Your task to perform on an android device: Open accessibility settings Image 0: 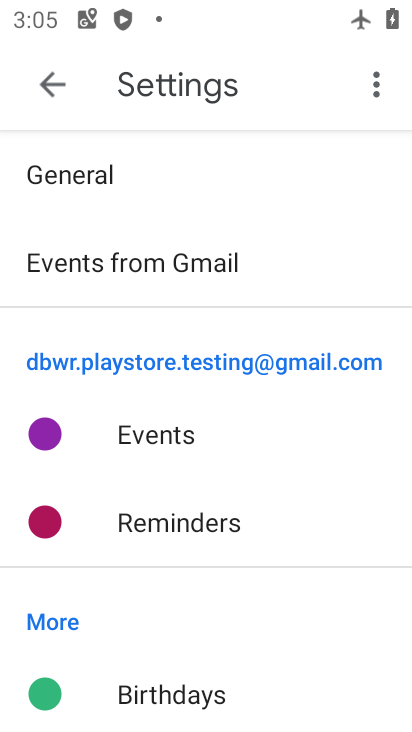
Step 0: press home button
Your task to perform on an android device: Open accessibility settings Image 1: 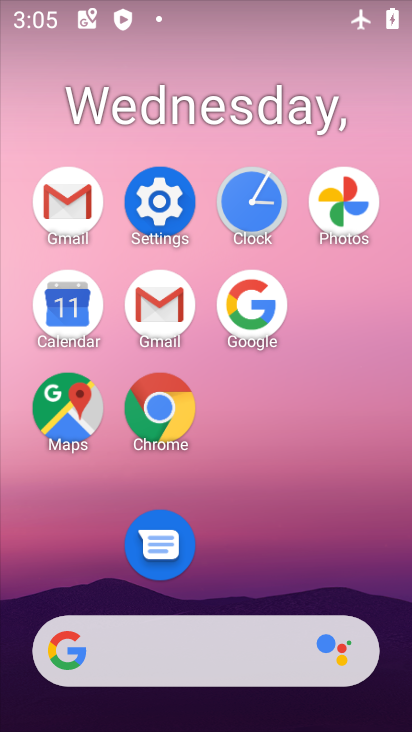
Step 1: click (162, 214)
Your task to perform on an android device: Open accessibility settings Image 2: 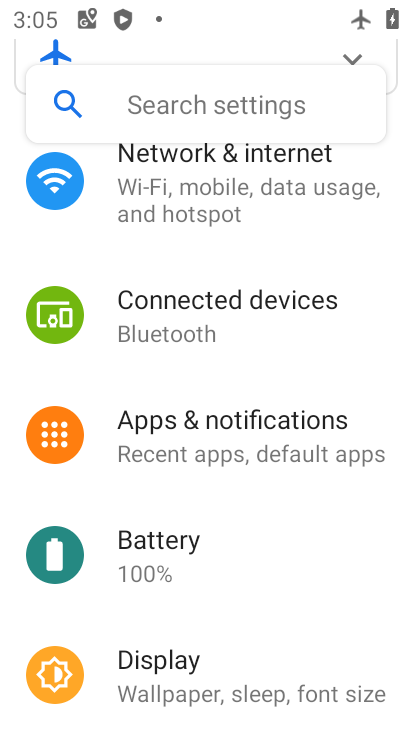
Step 2: drag from (247, 609) to (301, 209)
Your task to perform on an android device: Open accessibility settings Image 3: 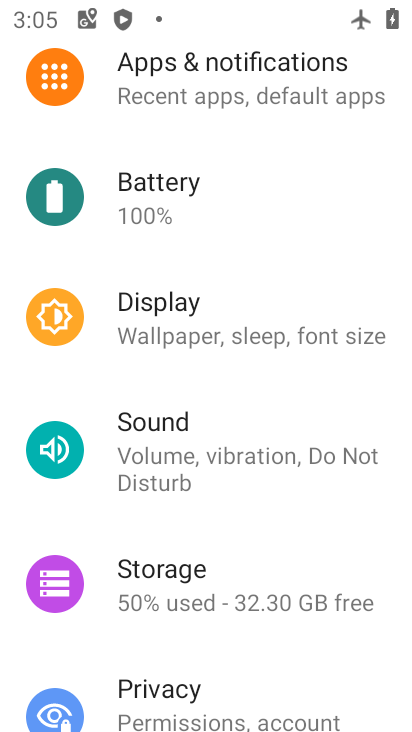
Step 3: drag from (300, 650) to (345, 246)
Your task to perform on an android device: Open accessibility settings Image 4: 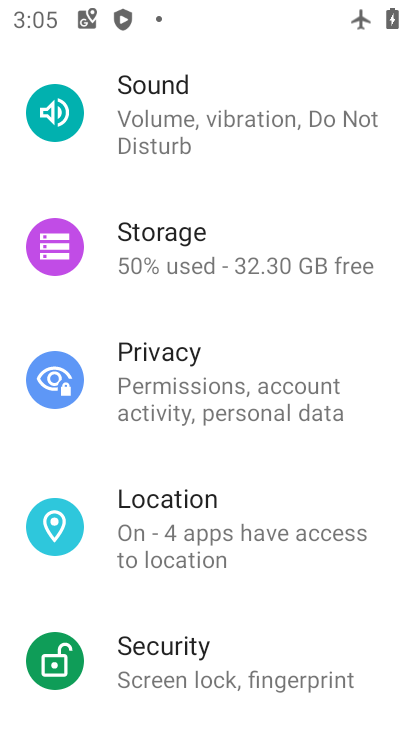
Step 4: drag from (268, 567) to (318, 225)
Your task to perform on an android device: Open accessibility settings Image 5: 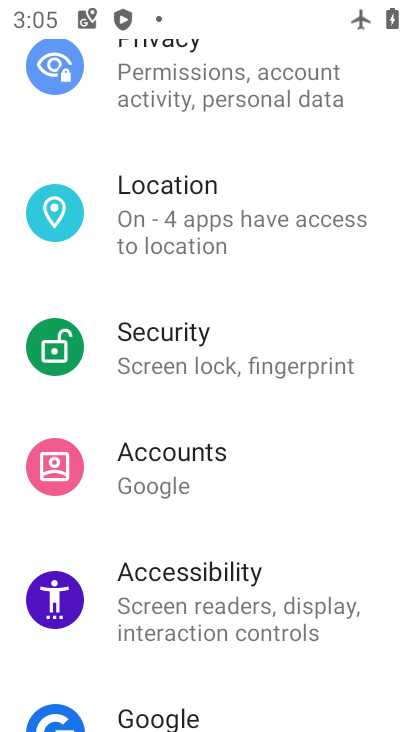
Step 5: click (231, 582)
Your task to perform on an android device: Open accessibility settings Image 6: 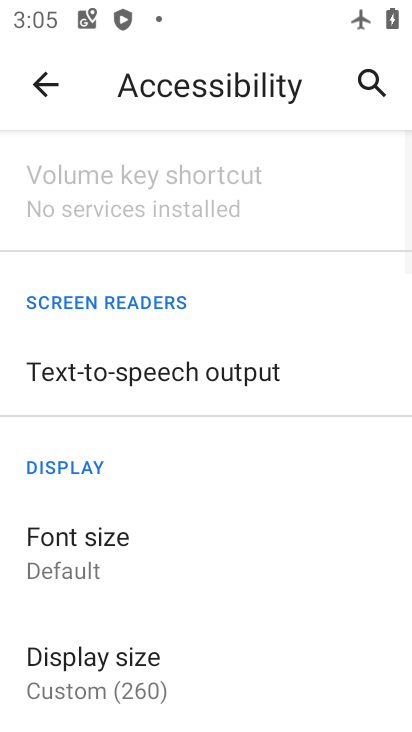
Step 6: task complete